Your task to perform on an android device: Go to settings Image 0: 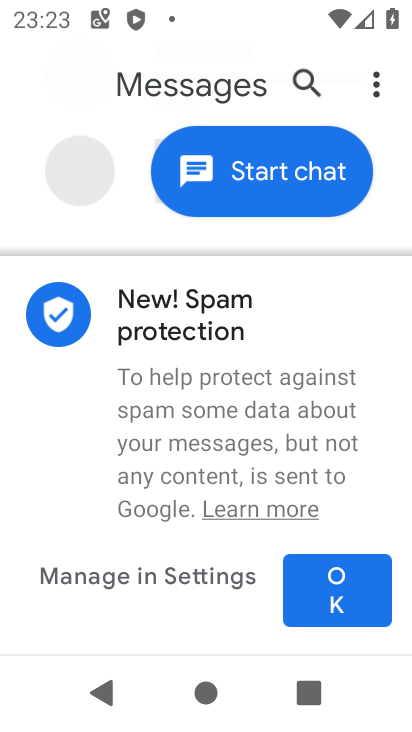
Step 0: press home button
Your task to perform on an android device: Go to settings Image 1: 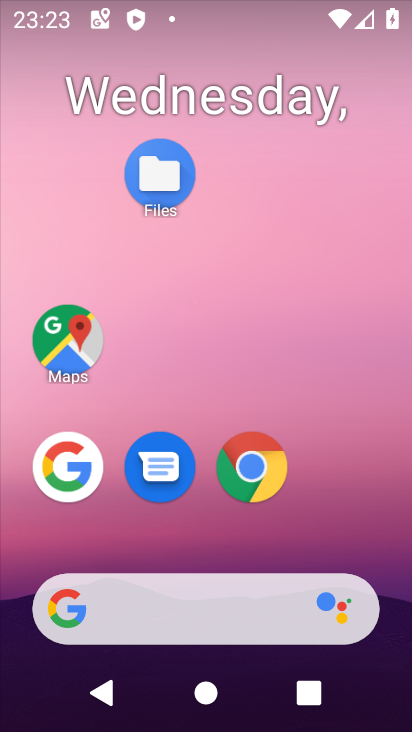
Step 1: drag from (235, 554) to (314, 12)
Your task to perform on an android device: Go to settings Image 2: 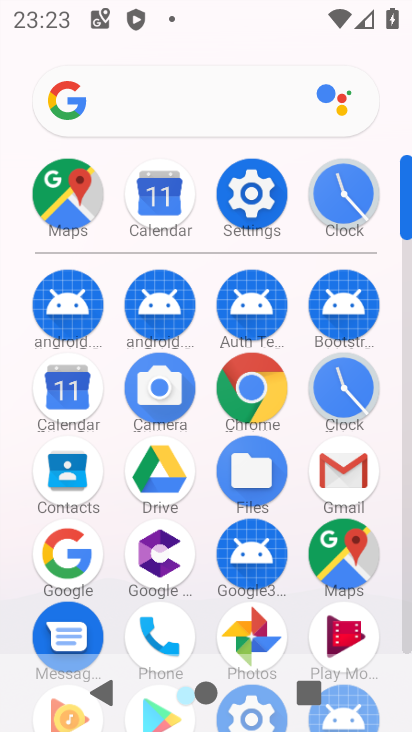
Step 2: click (243, 181)
Your task to perform on an android device: Go to settings Image 3: 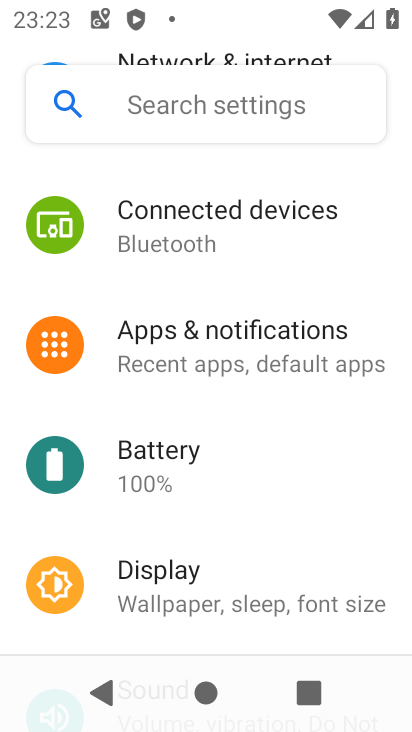
Step 3: task complete